Your task to perform on an android device: Go to Wikipedia Image 0: 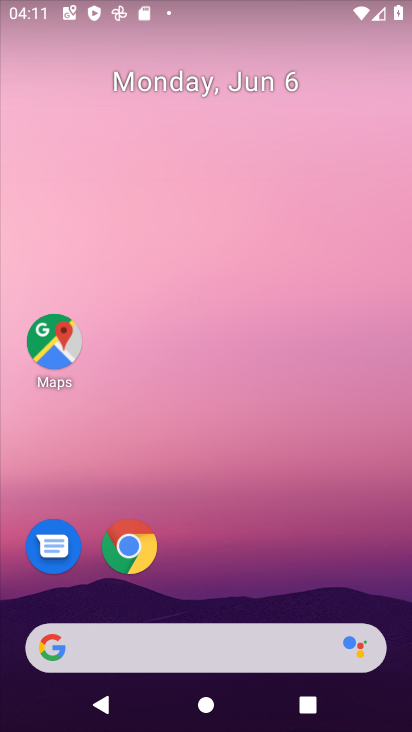
Step 0: drag from (283, 597) to (211, 12)
Your task to perform on an android device: Go to Wikipedia Image 1: 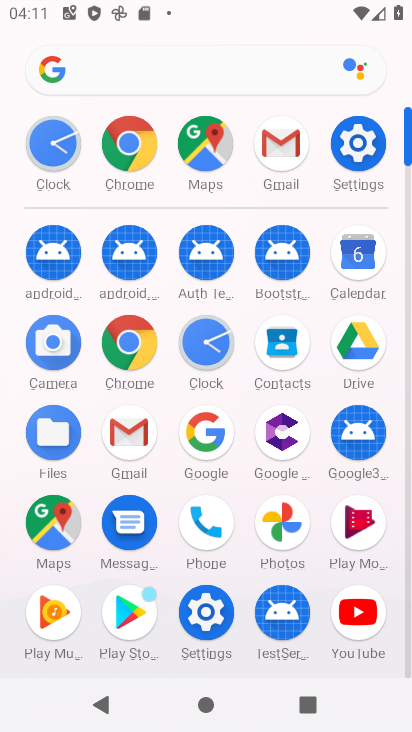
Step 1: click (379, 143)
Your task to perform on an android device: Go to Wikipedia Image 2: 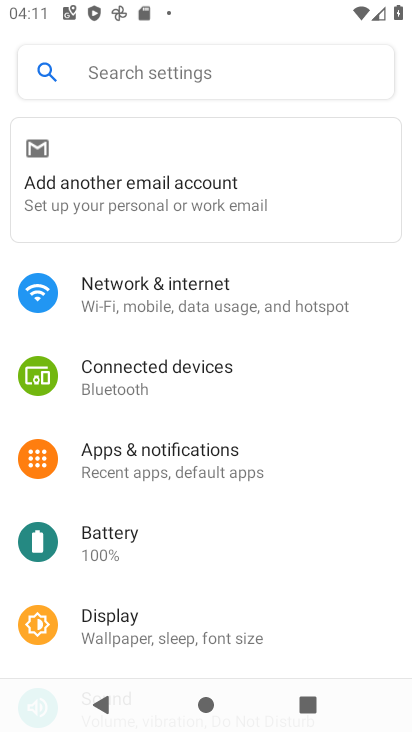
Step 2: press home button
Your task to perform on an android device: Go to Wikipedia Image 3: 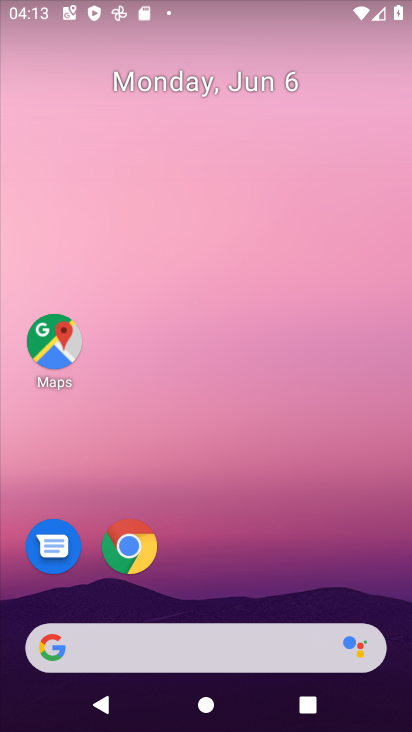
Step 3: click (203, 656)
Your task to perform on an android device: Go to Wikipedia Image 4: 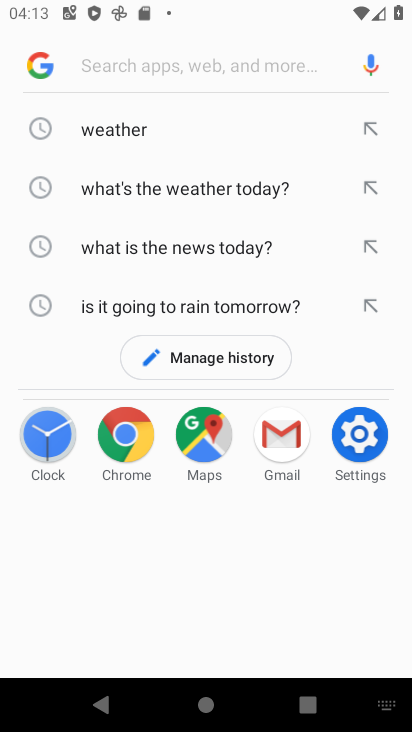
Step 4: type "wikipedia"
Your task to perform on an android device: Go to Wikipedia Image 5: 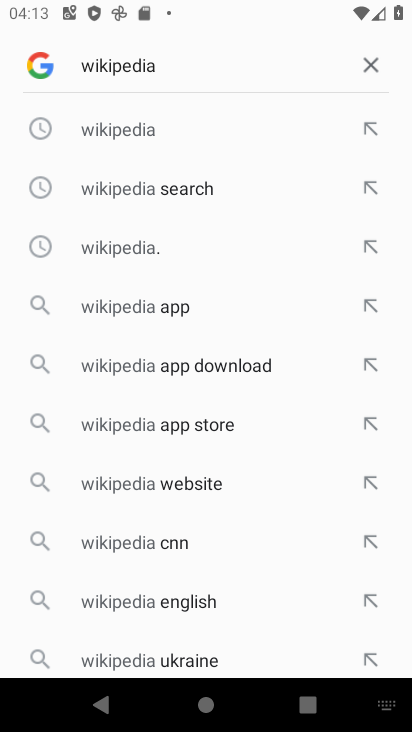
Step 5: click (190, 145)
Your task to perform on an android device: Go to Wikipedia Image 6: 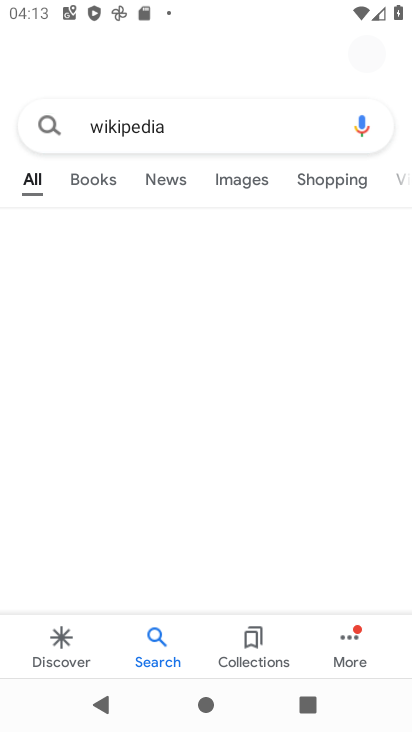
Step 6: task complete